Your task to perform on an android device: turn off wifi Image 0: 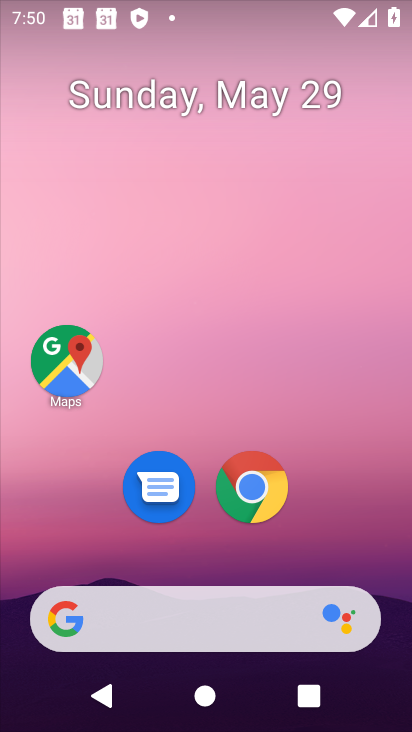
Step 0: drag from (287, 658) to (219, 3)
Your task to perform on an android device: turn off wifi Image 1: 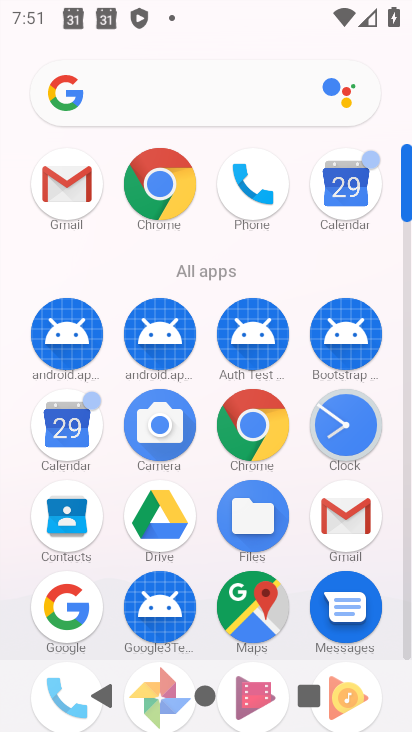
Step 1: drag from (183, 548) to (223, 0)
Your task to perform on an android device: turn off wifi Image 2: 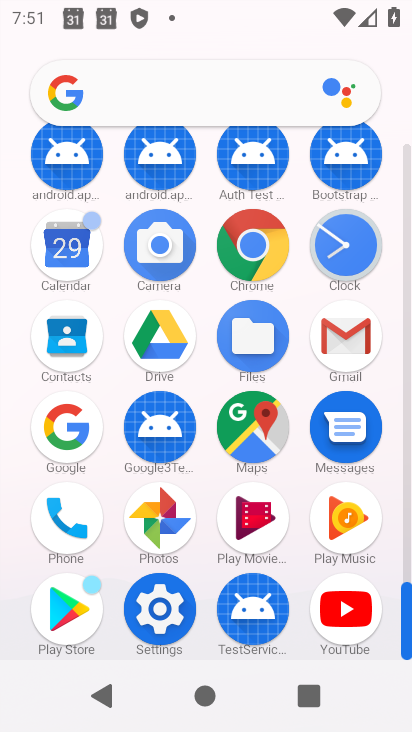
Step 2: click (174, 599)
Your task to perform on an android device: turn off wifi Image 3: 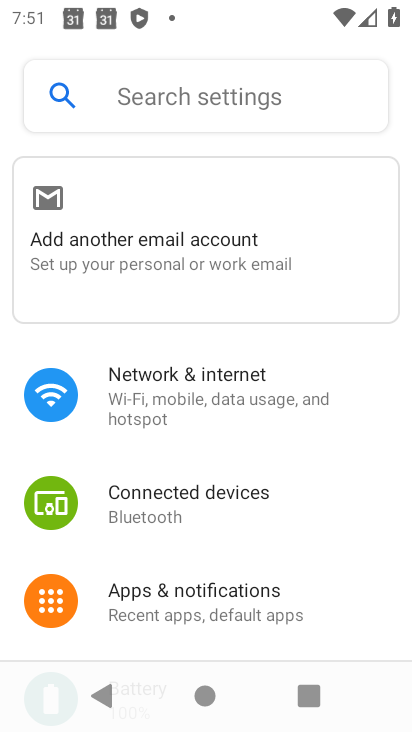
Step 3: drag from (174, 599) to (221, 129)
Your task to perform on an android device: turn off wifi Image 4: 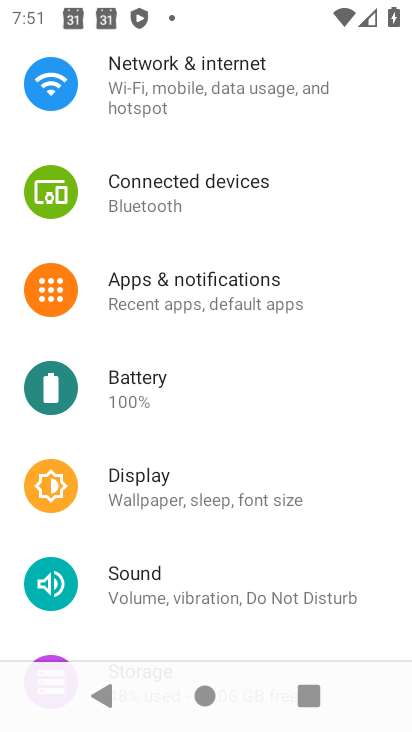
Step 4: drag from (210, 192) to (171, 495)
Your task to perform on an android device: turn off wifi Image 5: 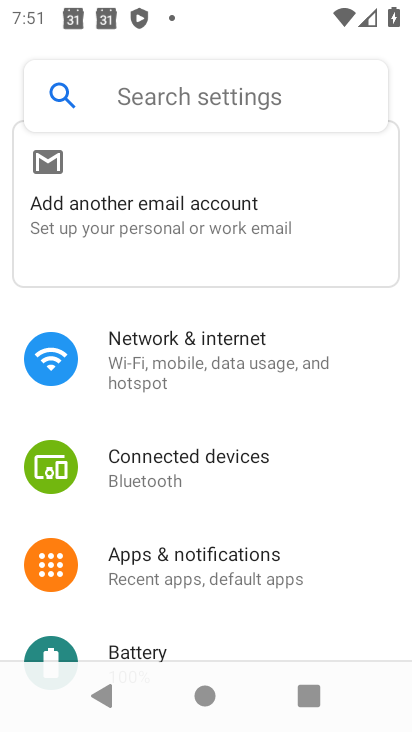
Step 5: click (173, 361)
Your task to perform on an android device: turn off wifi Image 6: 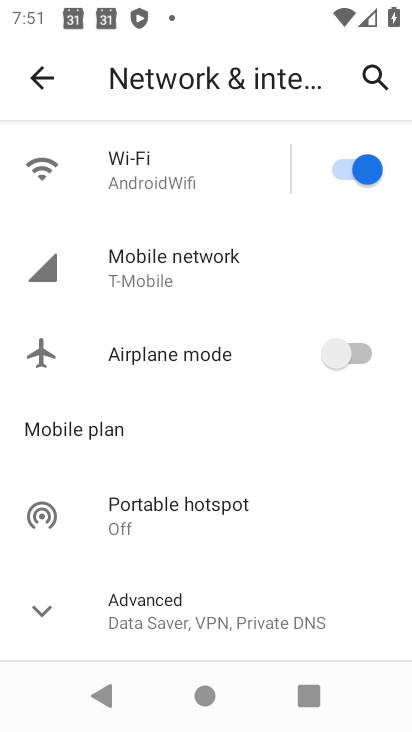
Step 6: click (328, 181)
Your task to perform on an android device: turn off wifi Image 7: 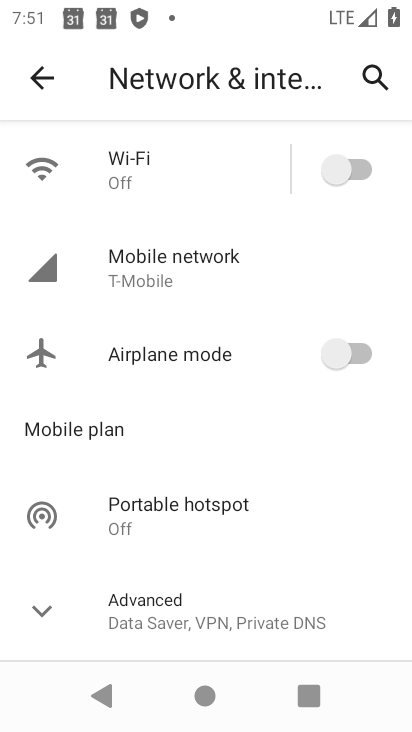
Step 7: task complete